Your task to perform on an android device: turn off picture-in-picture Image 0: 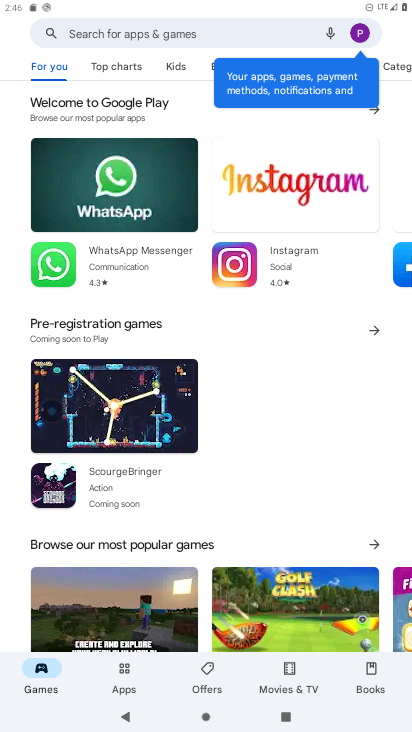
Step 0: press home button
Your task to perform on an android device: turn off picture-in-picture Image 1: 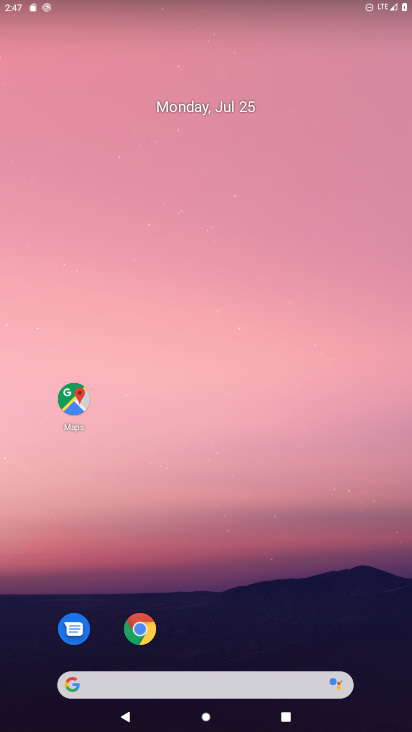
Step 1: click (120, 629)
Your task to perform on an android device: turn off picture-in-picture Image 2: 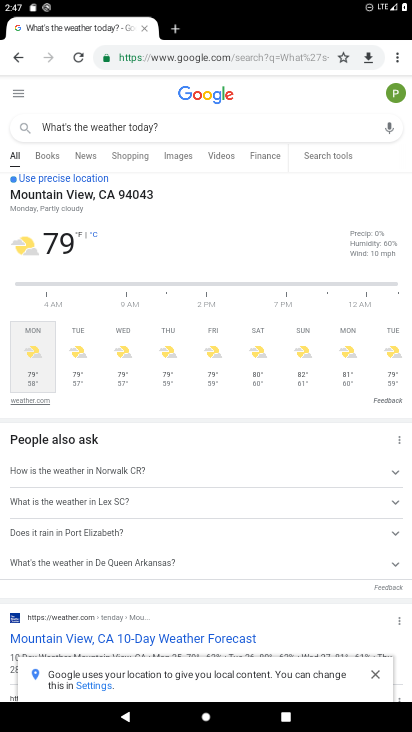
Step 2: press home button
Your task to perform on an android device: turn off picture-in-picture Image 3: 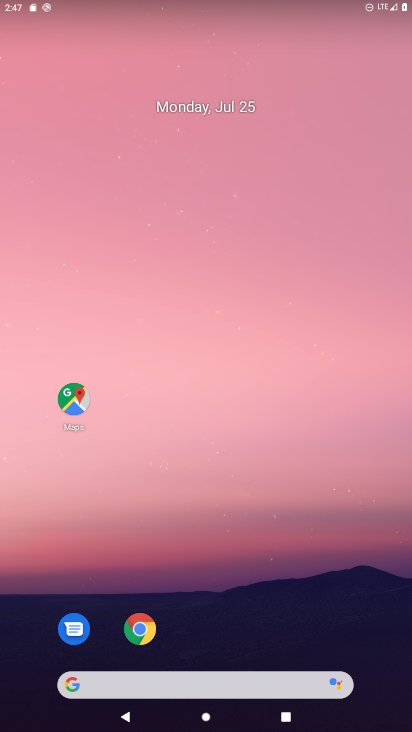
Step 3: click (132, 630)
Your task to perform on an android device: turn off picture-in-picture Image 4: 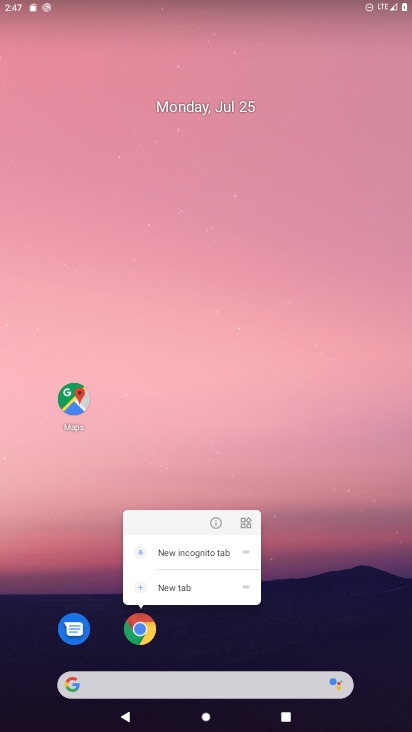
Step 4: click (221, 519)
Your task to perform on an android device: turn off picture-in-picture Image 5: 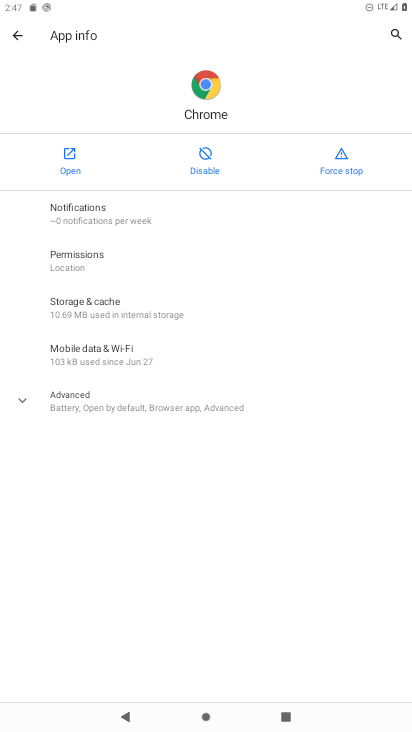
Step 5: click (112, 217)
Your task to perform on an android device: turn off picture-in-picture Image 6: 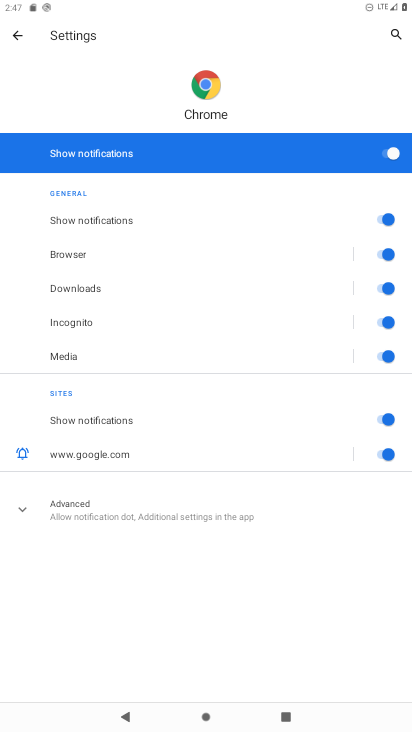
Step 6: press back button
Your task to perform on an android device: turn off picture-in-picture Image 7: 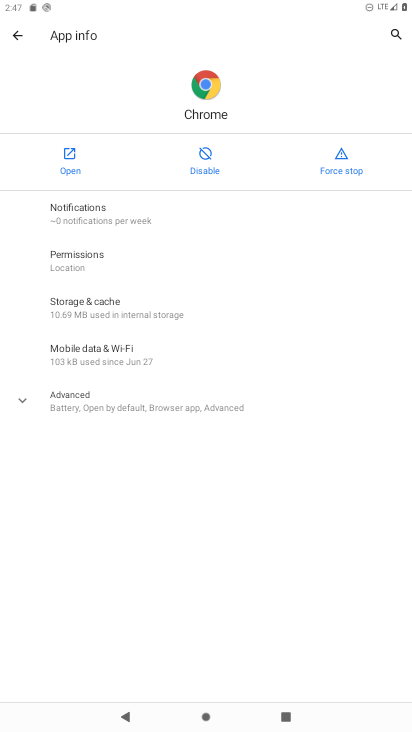
Step 7: click (127, 415)
Your task to perform on an android device: turn off picture-in-picture Image 8: 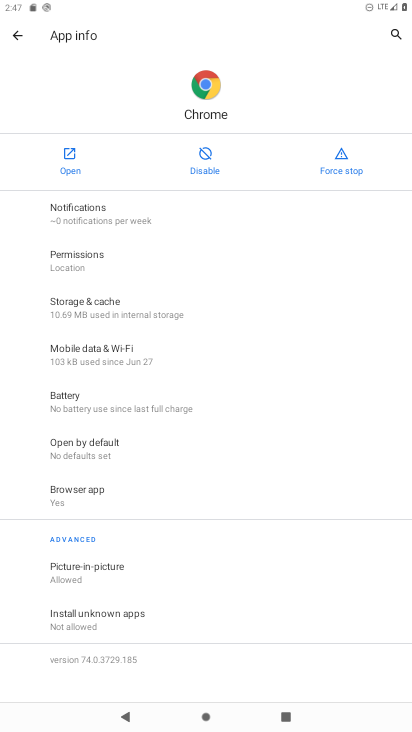
Step 8: click (53, 582)
Your task to perform on an android device: turn off picture-in-picture Image 9: 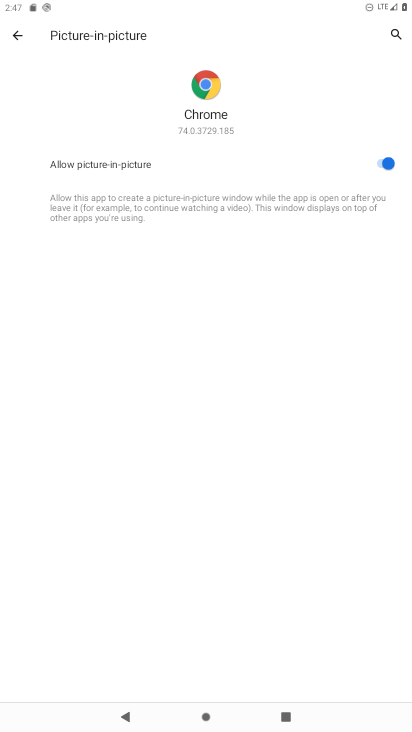
Step 9: click (277, 174)
Your task to perform on an android device: turn off picture-in-picture Image 10: 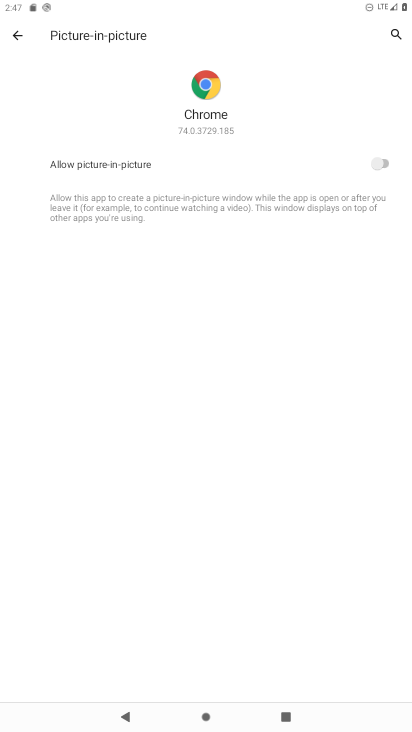
Step 10: task complete